Your task to perform on an android device: visit the assistant section in the google photos Image 0: 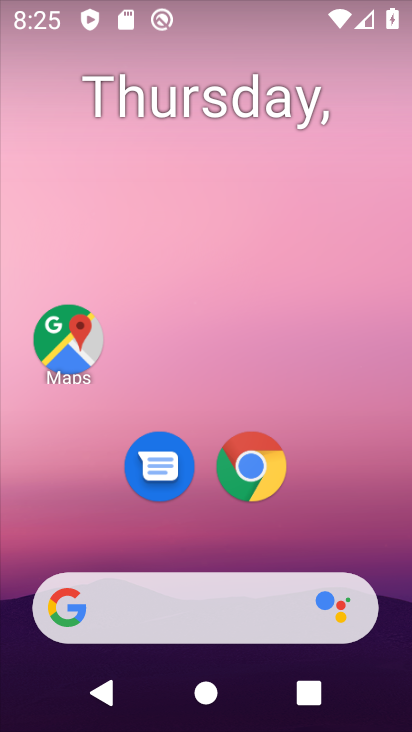
Step 0: press home button
Your task to perform on an android device: visit the assistant section in the google photos Image 1: 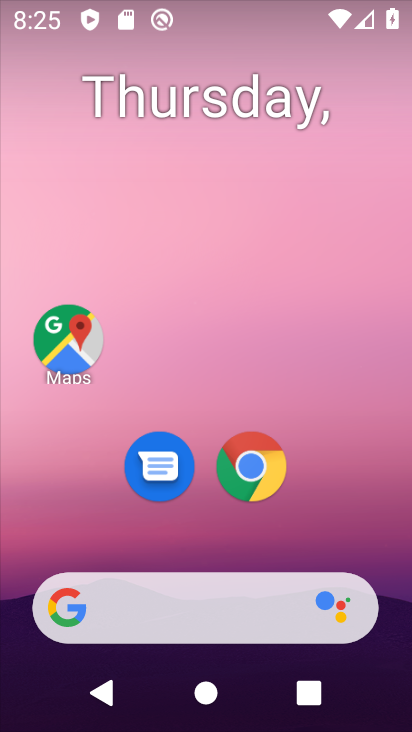
Step 1: drag from (197, 598) to (363, 134)
Your task to perform on an android device: visit the assistant section in the google photos Image 2: 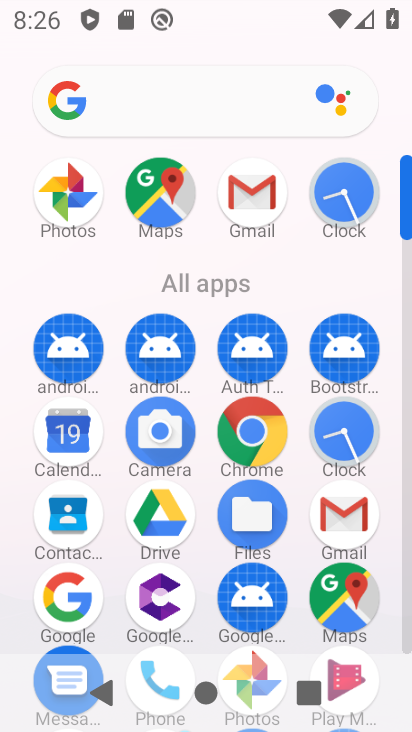
Step 2: click (75, 203)
Your task to perform on an android device: visit the assistant section in the google photos Image 3: 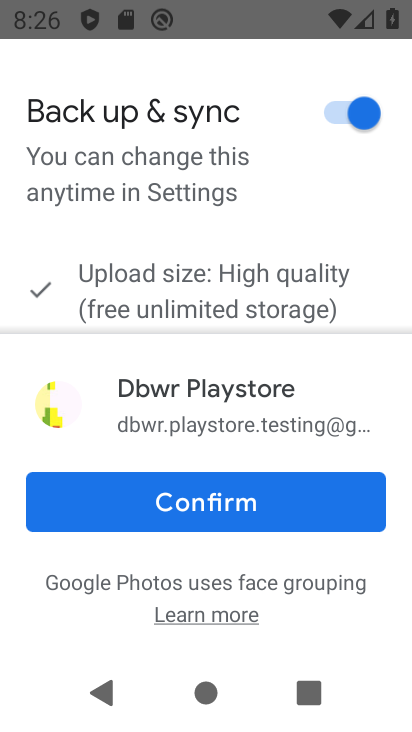
Step 3: click (216, 501)
Your task to perform on an android device: visit the assistant section in the google photos Image 4: 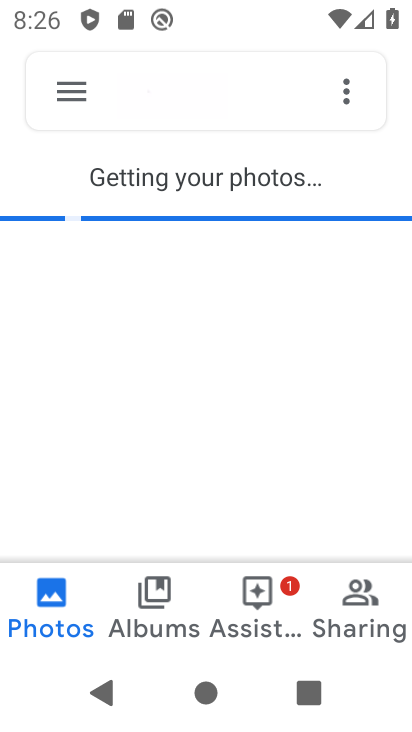
Step 4: click (258, 607)
Your task to perform on an android device: visit the assistant section in the google photos Image 5: 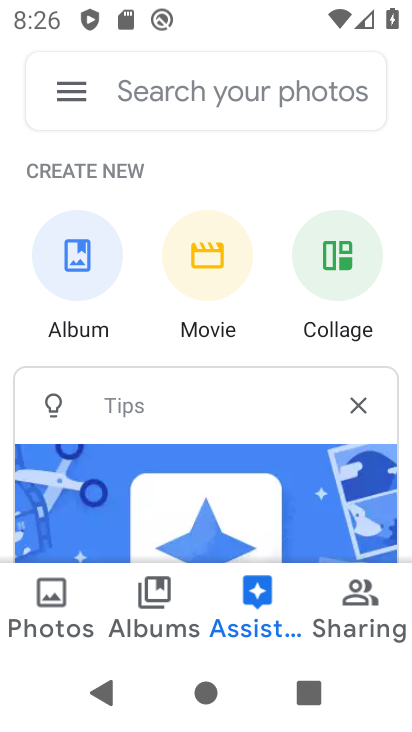
Step 5: task complete